Your task to perform on an android device: Open Google Chrome Image 0: 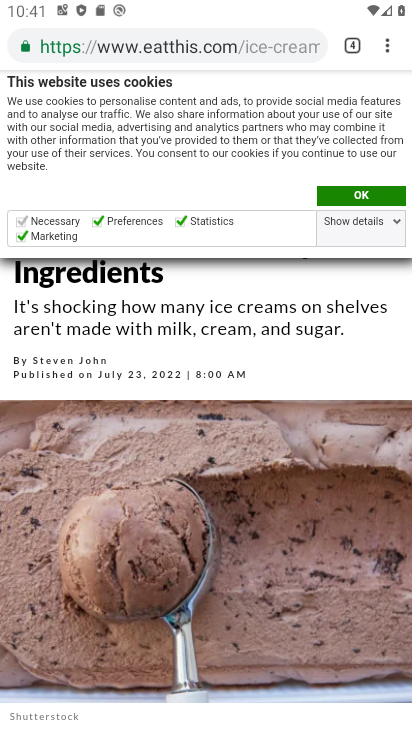
Step 0: press home button
Your task to perform on an android device: Open Google Chrome Image 1: 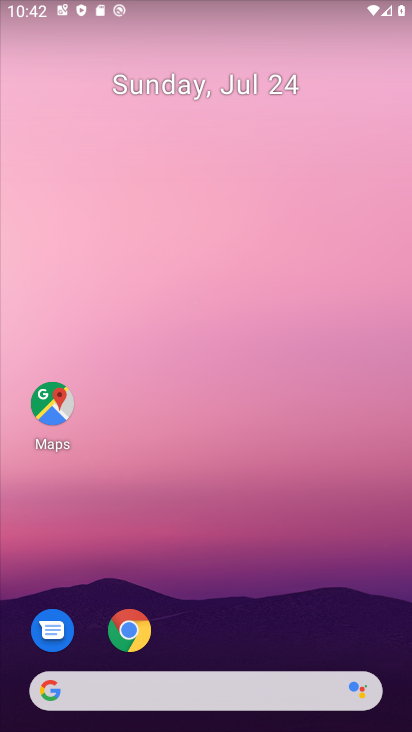
Step 1: click (128, 620)
Your task to perform on an android device: Open Google Chrome Image 2: 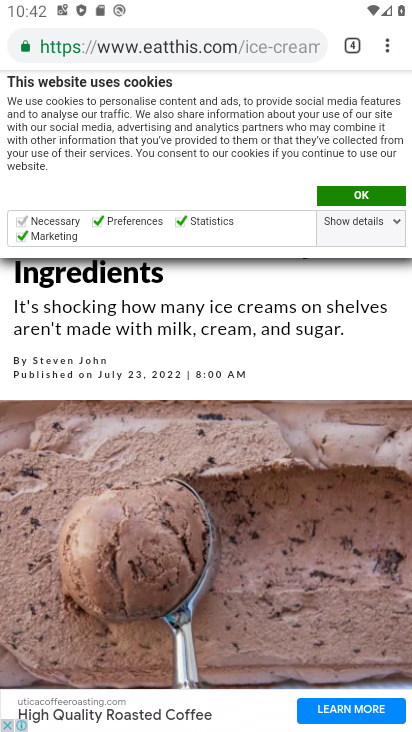
Step 2: click (388, 46)
Your task to perform on an android device: Open Google Chrome Image 3: 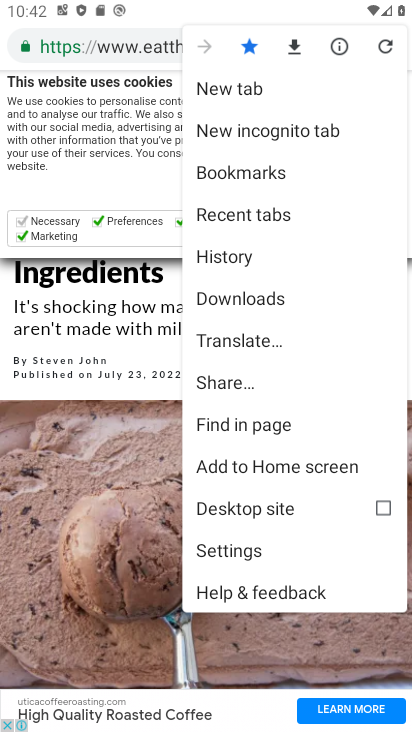
Step 3: task complete